Your task to perform on an android device: What are the best selling refrigerators at Lowes? Image 0: 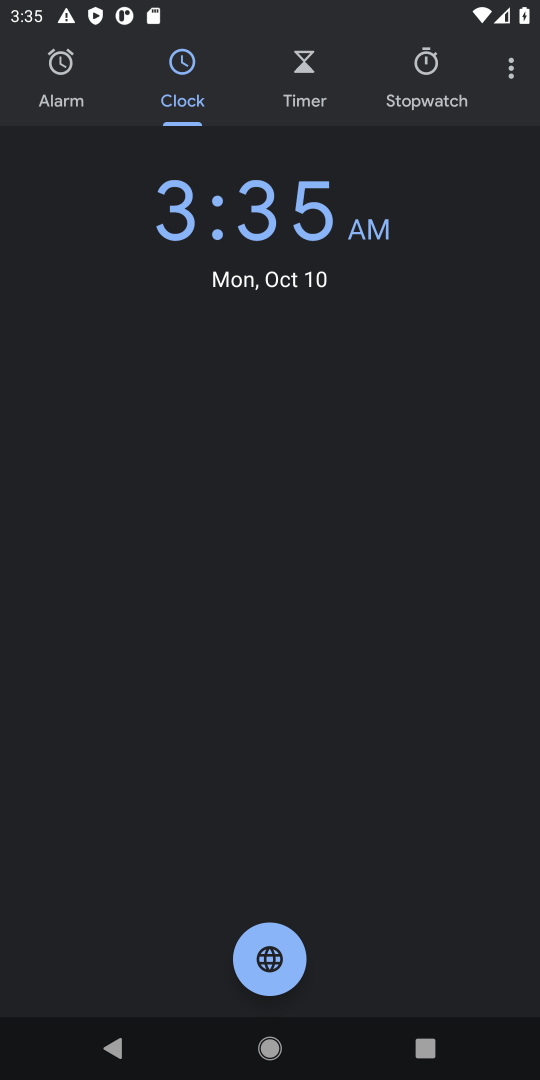
Step 0: press home button
Your task to perform on an android device: What are the best selling refrigerators at Lowes? Image 1: 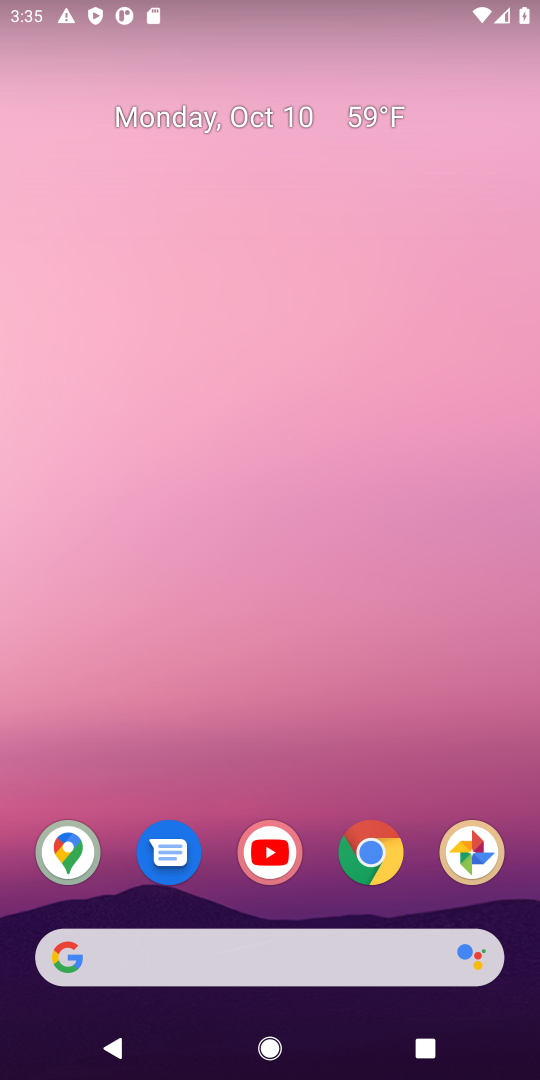
Step 1: click (377, 845)
Your task to perform on an android device: What are the best selling refrigerators at Lowes? Image 2: 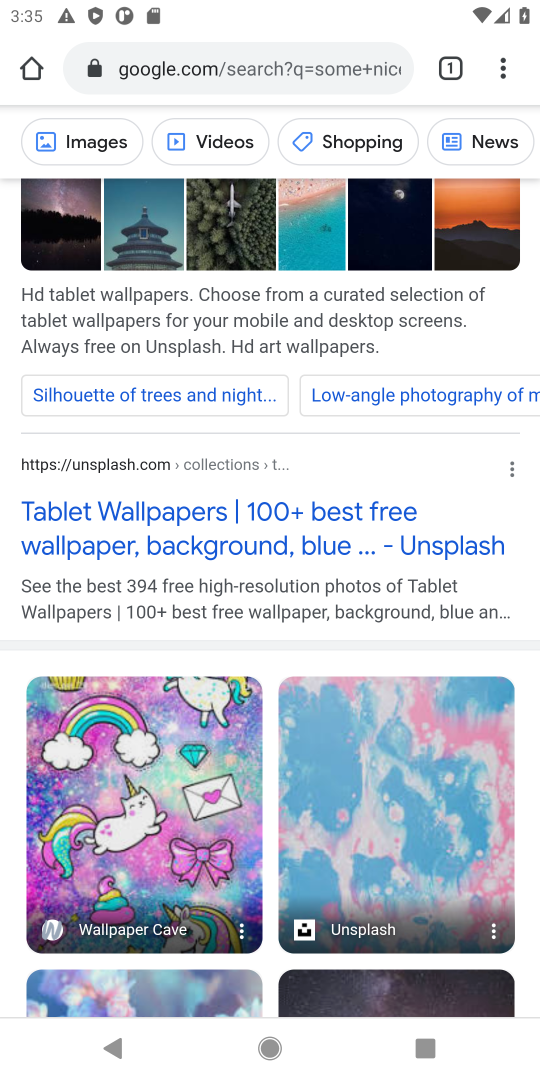
Step 2: click (340, 71)
Your task to perform on an android device: What are the best selling refrigerators at Lowes? Image 3: 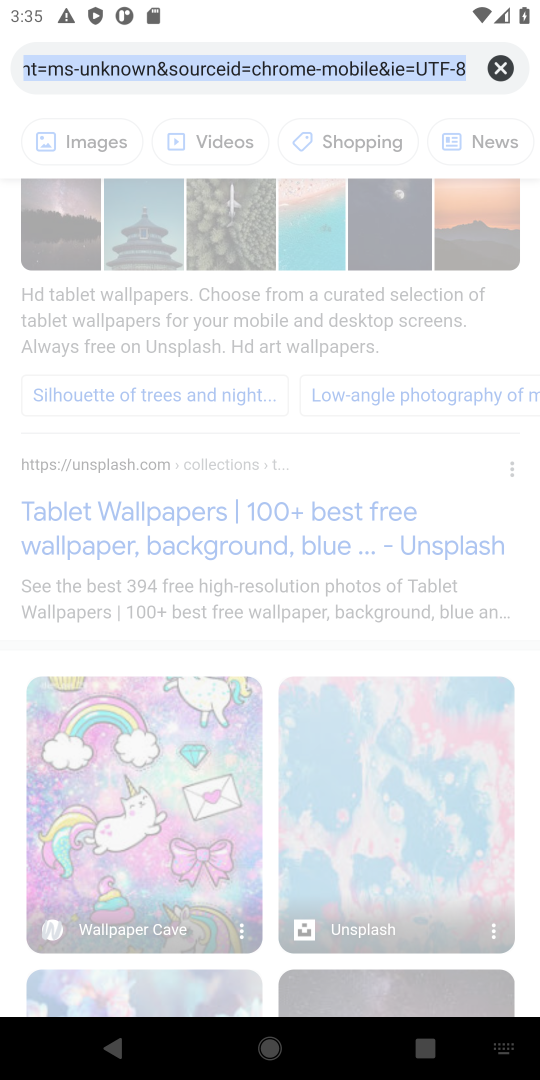
Step 3: type "best selling refrigerators at Lowes"
Your task to perform on an android device: What are the best selling refrigerators at Lowes? Image 4: 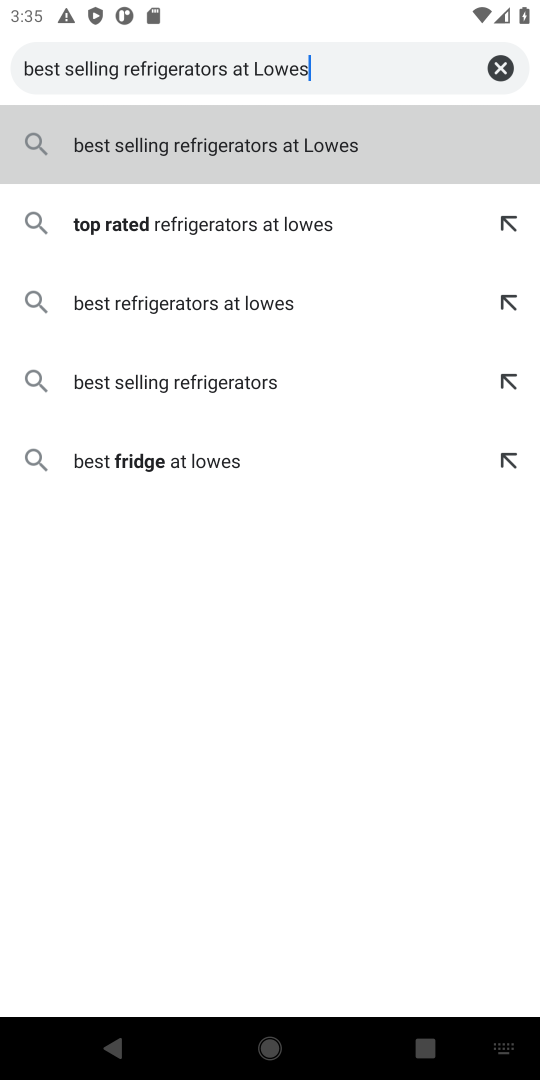
Step 4: click (222, 144)
Your task to perform on an android device: What are the best selling refrigerators at Lowes? Image 5: 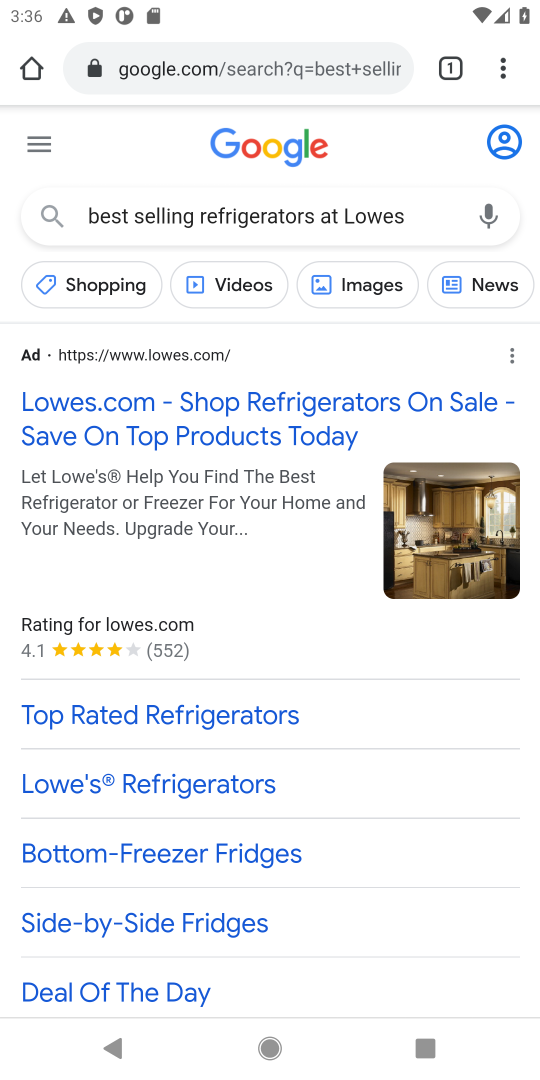
Step 5: drag from (265, 617) to (264, 250)
Your task to perform on an android device: What are the best selling refrigerators at Lowes? Image 6: 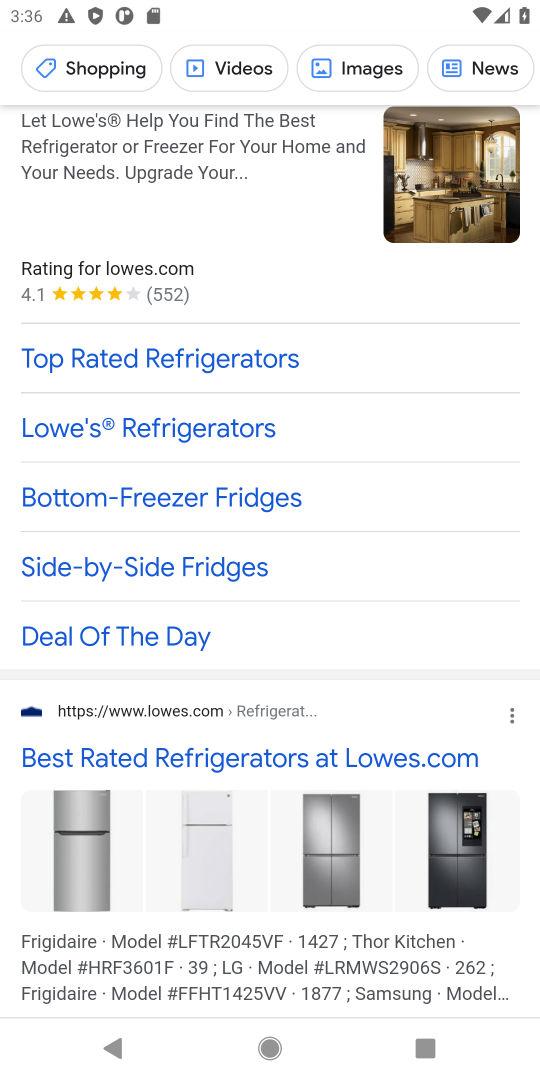
Step 6: drag from (431, 698) to (367, 523)
Your task to perform on an android device: What are the best selling refrigerators at Lowes? Image 7: 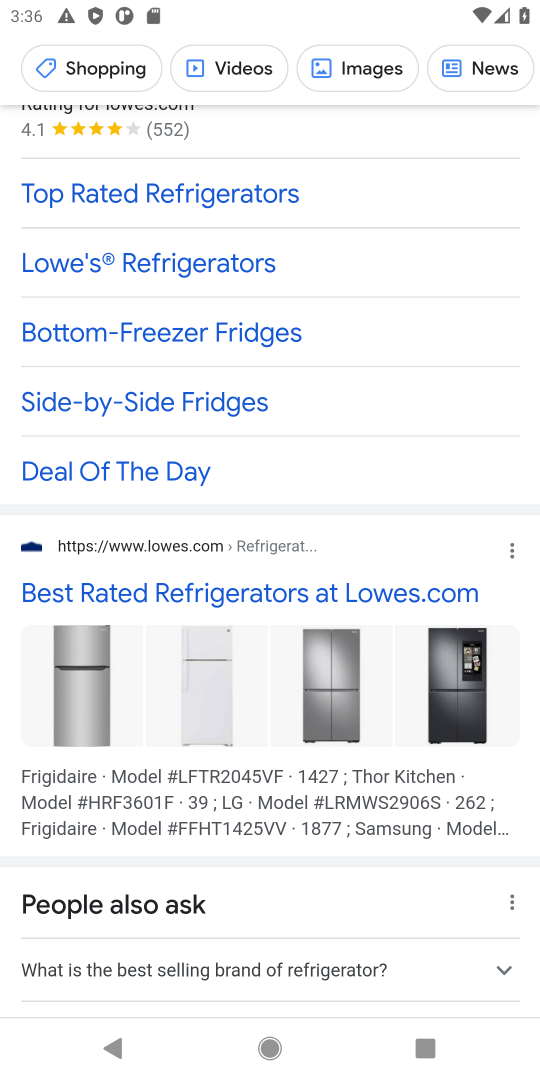
Step 7: click (151, 590)
Your task to perform on an android device: What are the best selling refrigerators at Lowes? Image 8: 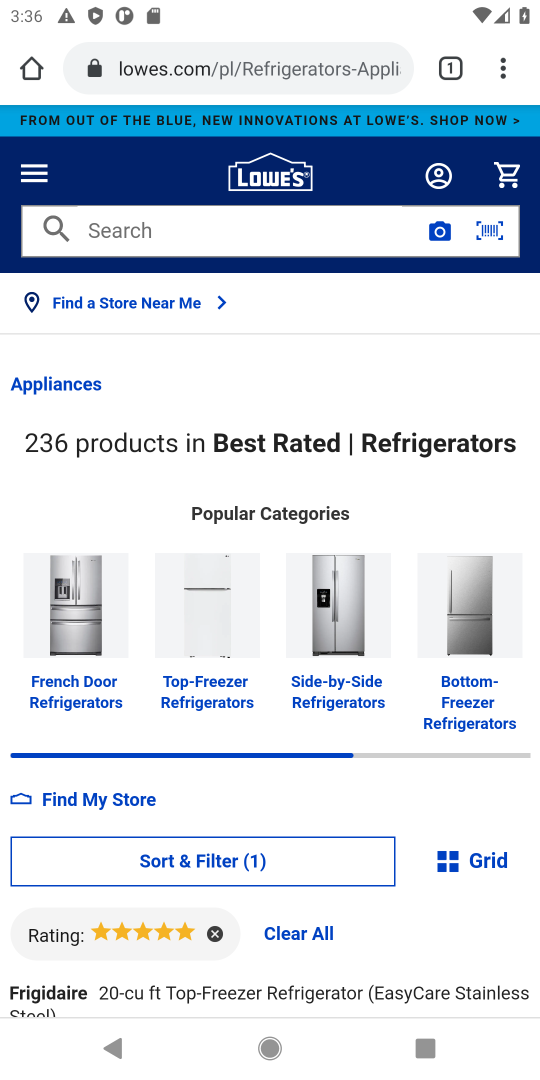
Step 8: task complete